Your task to perform on an android device: Open Google Chrome and open the bookmarks view Image 0: 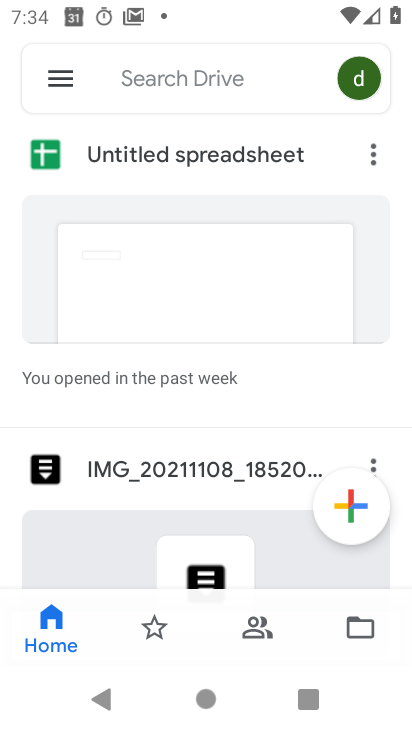
Step 0: press home button
Your task to perform on an android device: Open Google Chrome and open the bookmarks view Image 1: 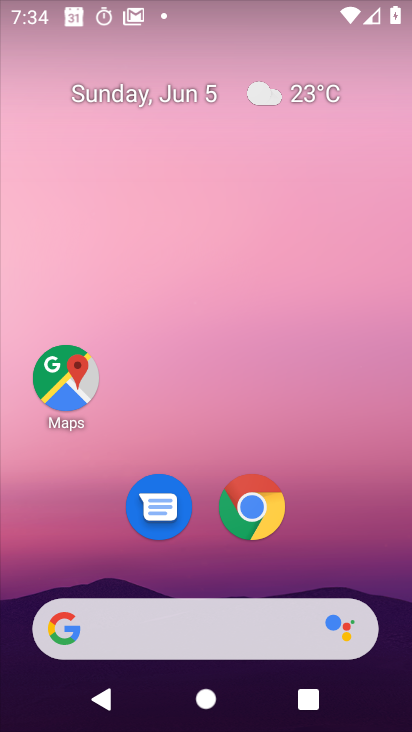
Step 1: drag from (196, 601) to (170, 175)
Your task to perform on an android device: Open Google Chrome and open the bookmarks view Image 2: 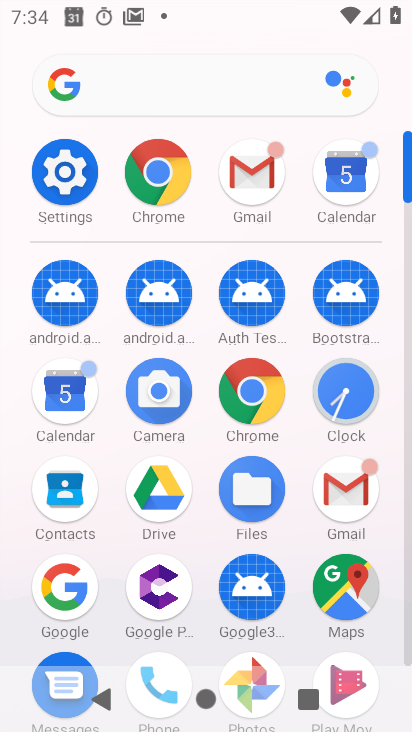
Step 2: click (167, 181)
Your task to perform on an android device: Open Google Chrome and open the bookmarks view Image 3: 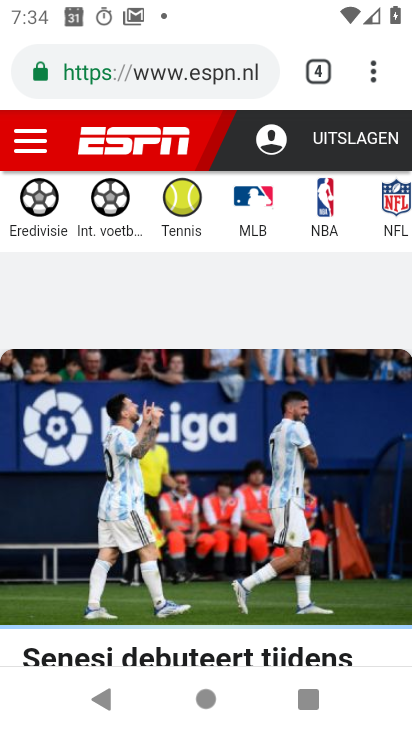
Step 3: click (363, 89)
Your task to perform on an android device: Open Google Chrome and open the bookmarks view Image 4: 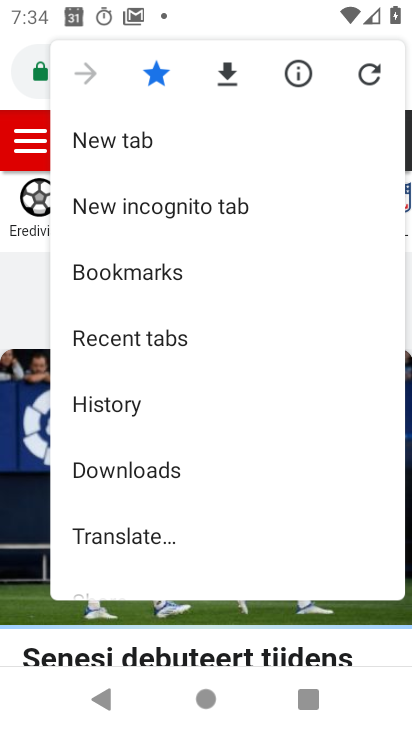
Step 4: click (100, 284)
Your task to perform on an android device: Open Google Chrome and open the bookmarks view Image 5: 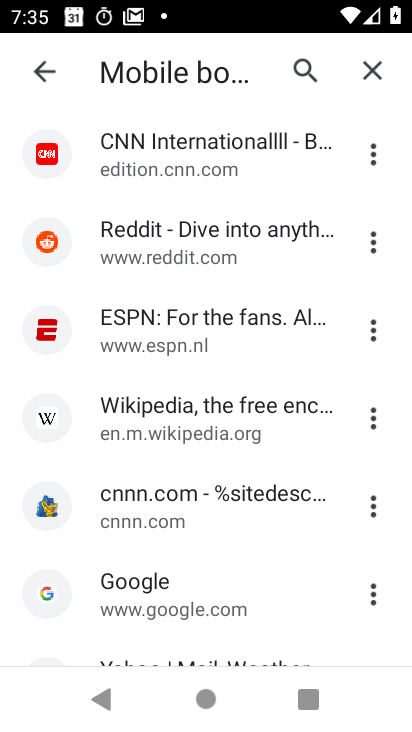
Step 5: task complete